Your task to perform on an android device: check the backup settings in the google photos Image 0: 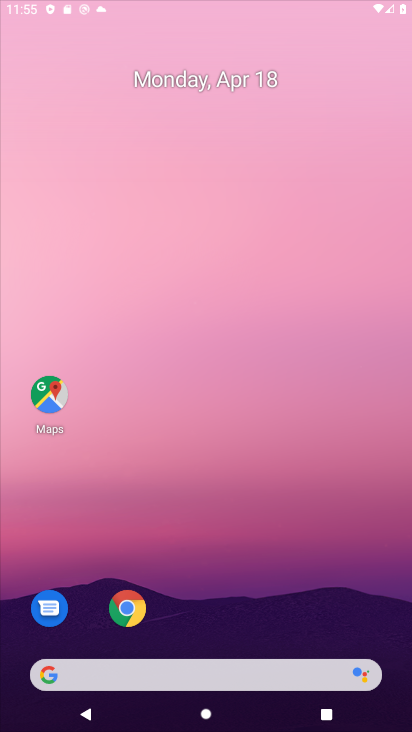
Step 0: click (301, 94)
Your task to perform on an android device: check the backup settings in the google photos Image 1: 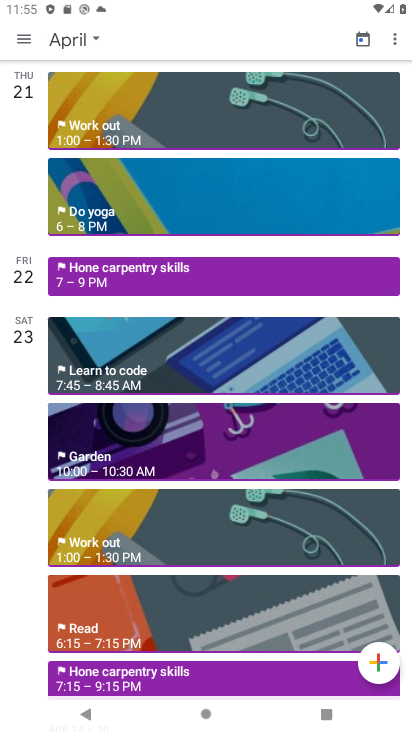
Step 1: press back button
Your task to perform on an android device: check the backup settings in the google photos Image 2: 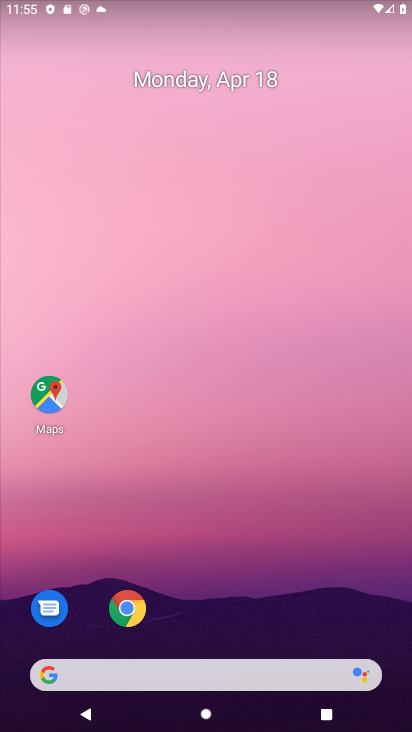
Step 2: drag from (213, 542) to (314, 75)
Your task to perform on an android device: check the backup settings in the google photos Image 3: 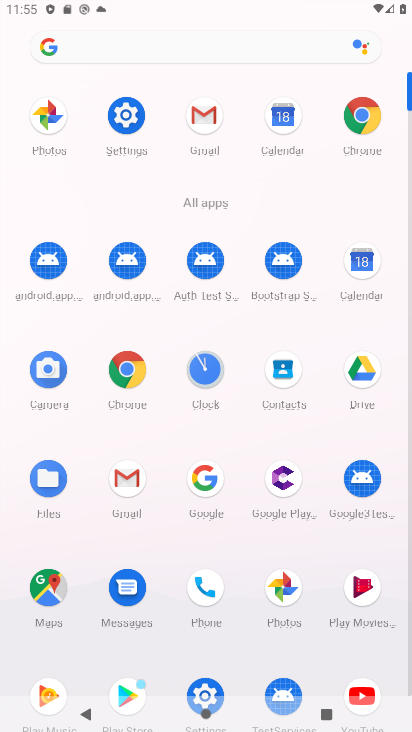
Step 3: click (282, 591)
Your task to perform on an android device: check the backup settings in the google photos Image 4: 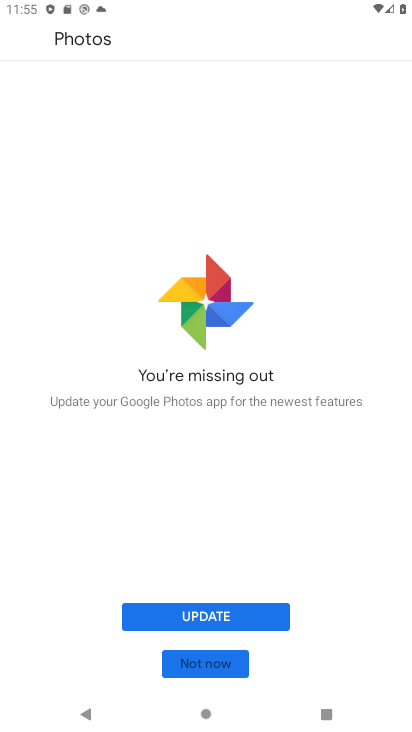
Step 4: click (258, 617)
Your task to perform on an android device: check the backup settings in the google photos Image 5: 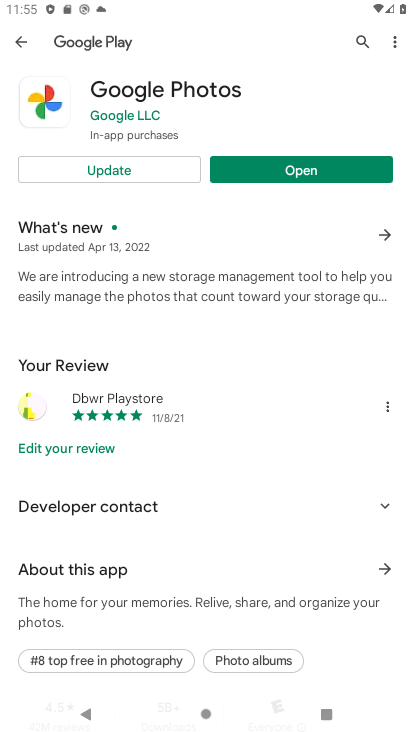
Step 5: click (125, 171)
Your task to perform on an android device: check the backup settings in the google photos Image 6: 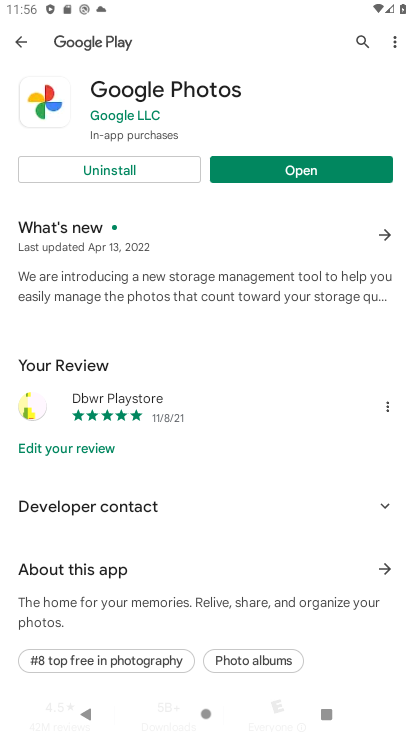
Step 6: click (303, 167)
Your task to perform on an android device: check the backup settings in the google photos Image 7: 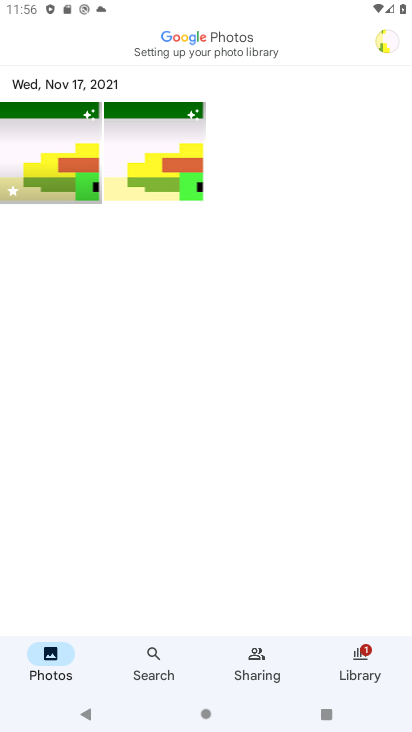
Step 7: drag from (114, 310) to (69, 530)
Your task to perform on an android device: check the backup settings in the google photos Image 8: 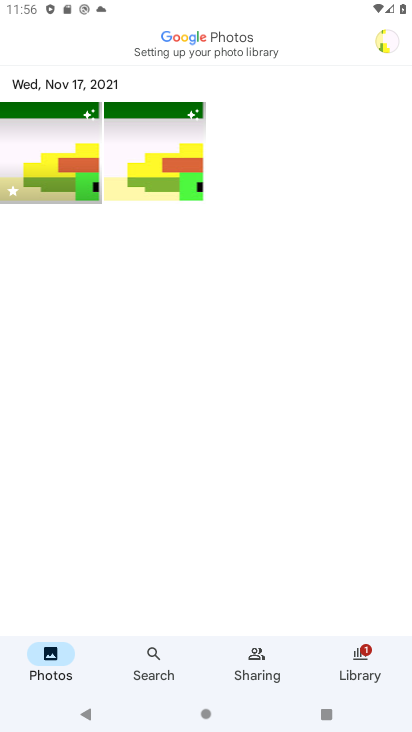
Step 8: click (392, 47)
Your task to perform on an android device: check the backup settings in the google photos Image 9: 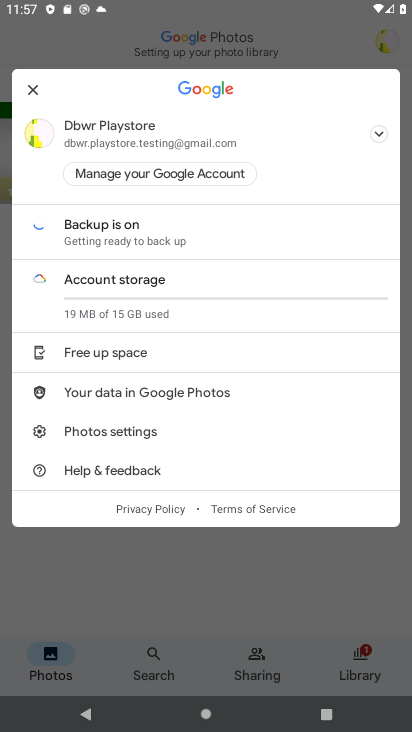
Step 9: click (184, 438)
Your task to perform on an android device: check the backup settings in the google photos Image 10: 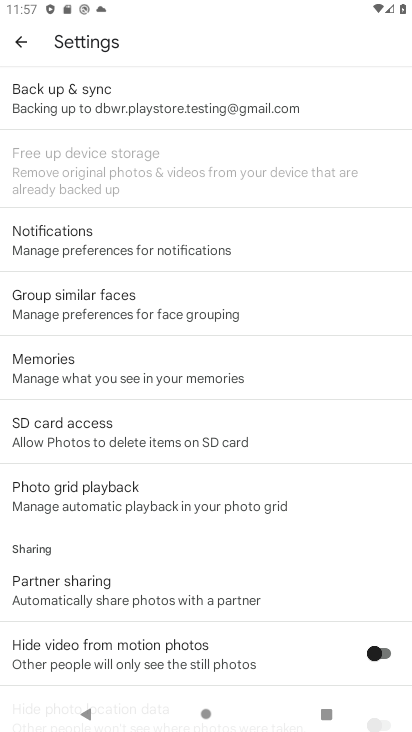
Step 10: click (172, 105)
Your task to perform on an android device: check the backup settings in the google photos Image 11: 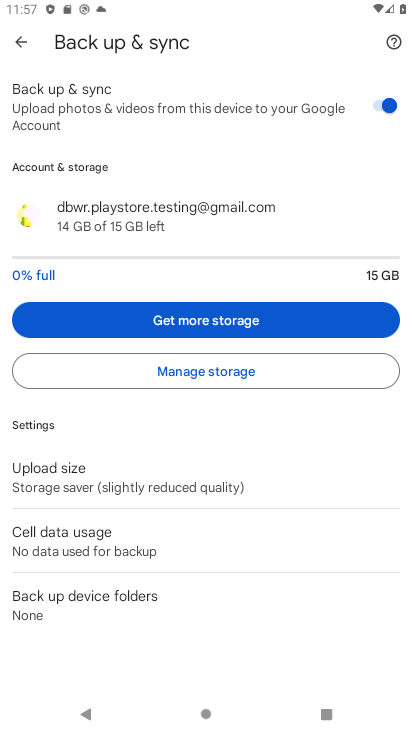
Step 11: task complete